Your task to perform on an android device: turn off priority inbox in the gmail app Image 0: 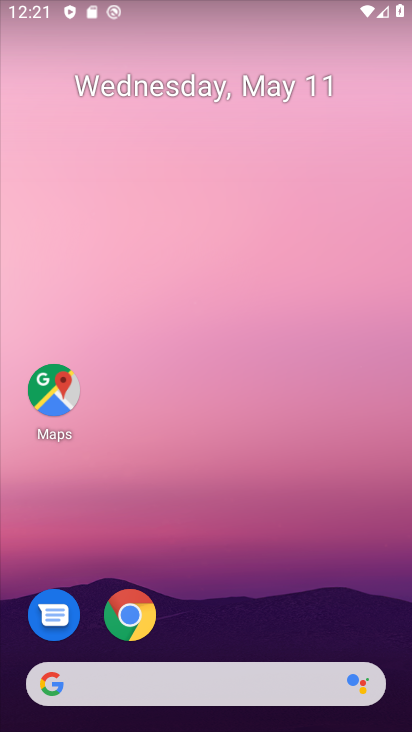
Step 0: drag from (228, 611) to (280, 78)
Your task to perform on an android device: turn off priority inbox in the gmail app Image 1: 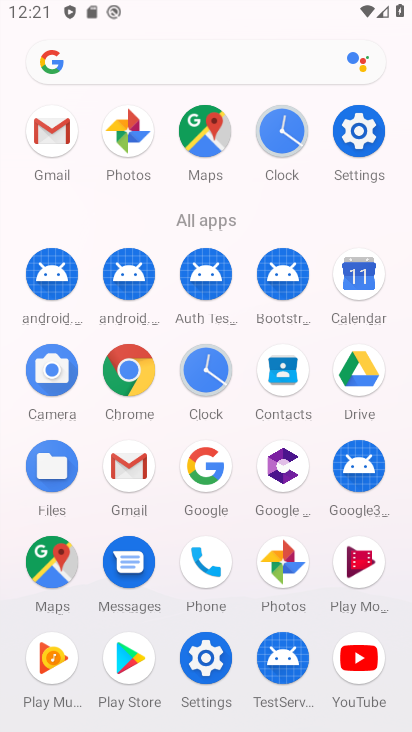
Step 1: click (36, 119)
Your task to perform on an android device: turn off priority inbox in the gmail app Image 2: 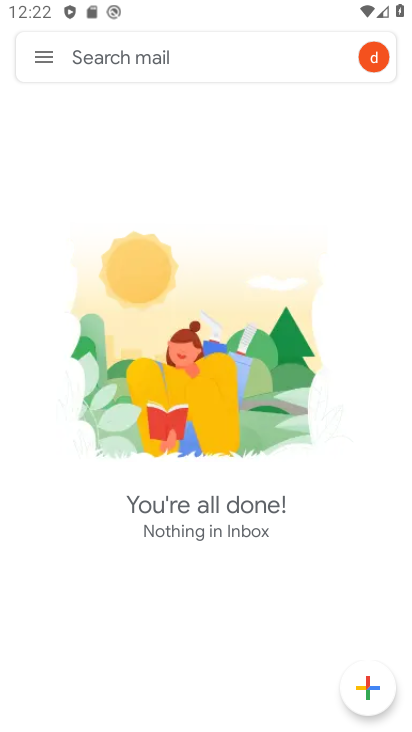
Step 2: click (40, 50)
Your task to perform on an android device: turn off priority inbox in the gmail app Image 3: 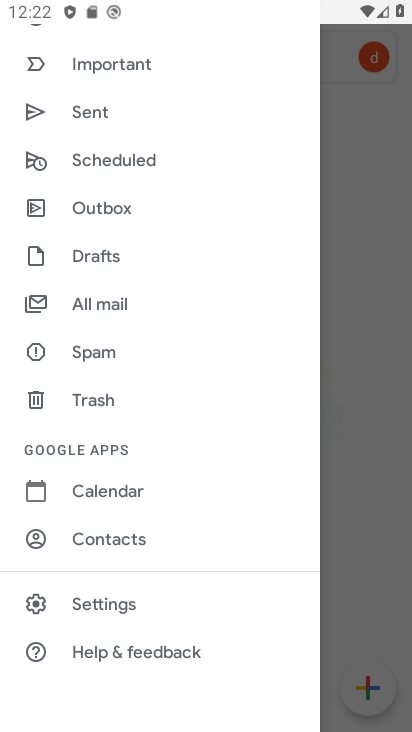
Step 3: click (108, 613)
Your task to perform on an android device: turn off priority inbox in the gmail app Image 4: 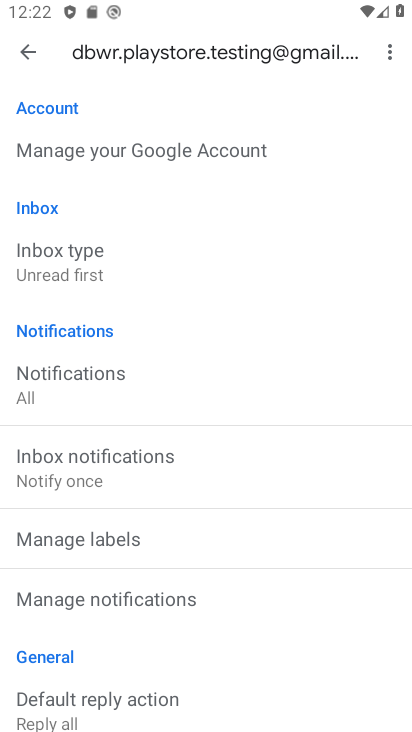
Step 4: click (109, 259)
Your task to perform on an android device: turn off priority inbox in the gmail app Image 5: 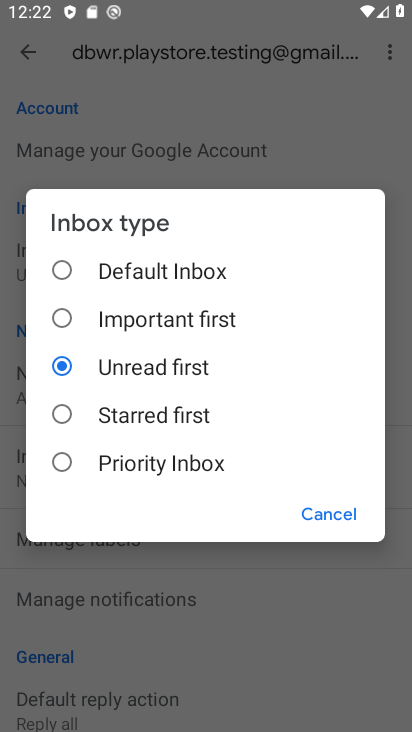
Step 5: task complete